Your task to perform on an android device: Open sound settings Image 0: 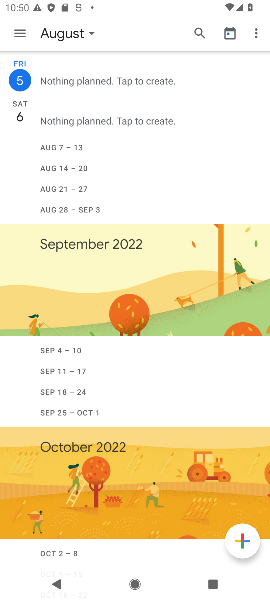
Step 0: press home button
Your task to perform on an android device: Open sound settings Image 1: 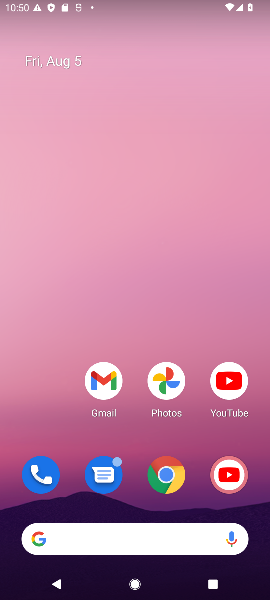
Step 1: drag from (116, 500) to (130, 0)
Your task to perform on an android device: Open sound settings Image 2: 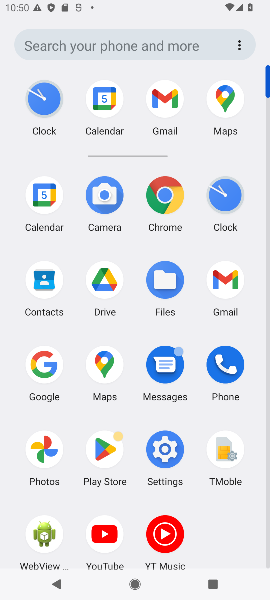
Step 2: click (162, 452)
Your task to perform on an android device: Open sound settings Image 3: 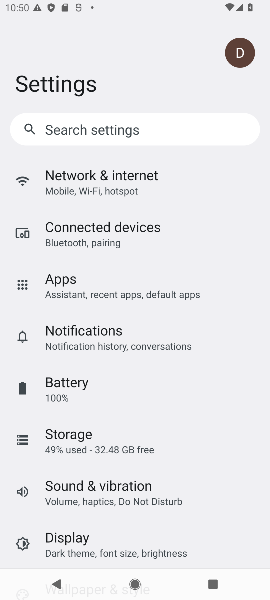
Step 3: click (85, 500)
Your task to perform on an android device: Open sound settings Image 4: 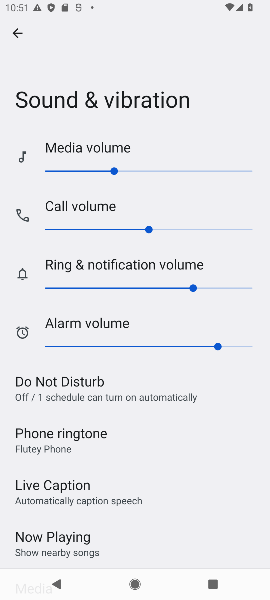
Step 4: task complete